Your task to perform on an android device: Go to Google Image 0: 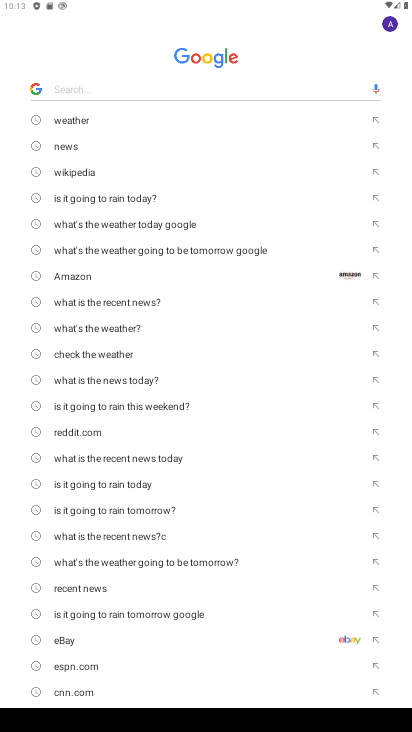
Step 0: task complete